Your task to perform on an android device: turn on location history Image 0: 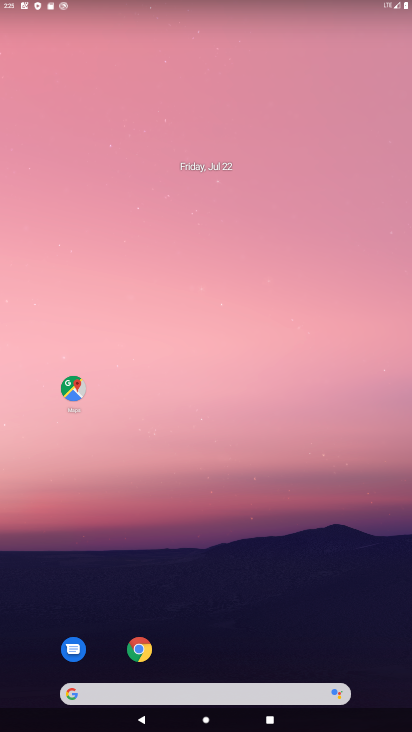
Step 0: drag from (129, 180) to (125, 47)
Your task to perform on an android device: turn on location history Image 1: 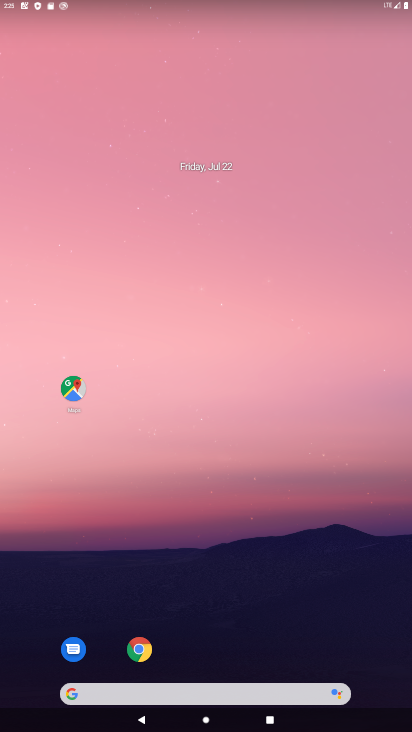
Step 1: drag from (181, 540) to (217, 16)
Your task to perform on an android device: turn on location history Image 2: 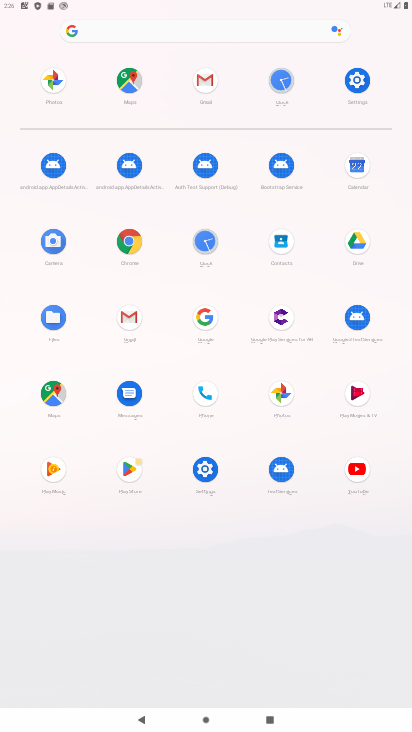
Step 2: drag from (179, 593) to (183, 230)
Your task to perform on an android device: turn on location history Image 3: 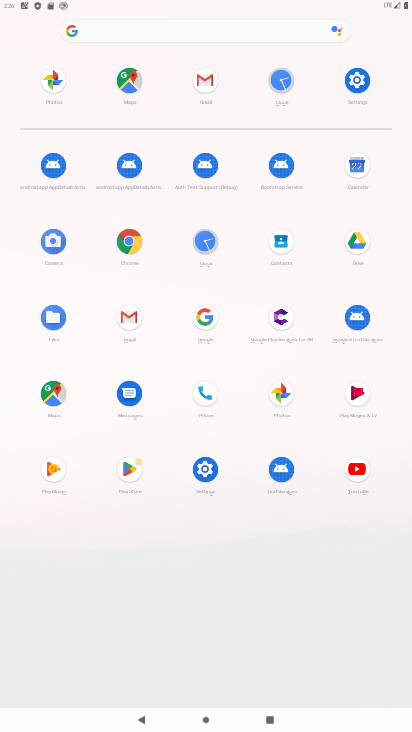
Step 3: click (206, 470)
Your task to perform on an android device: turn on location history Image 4: 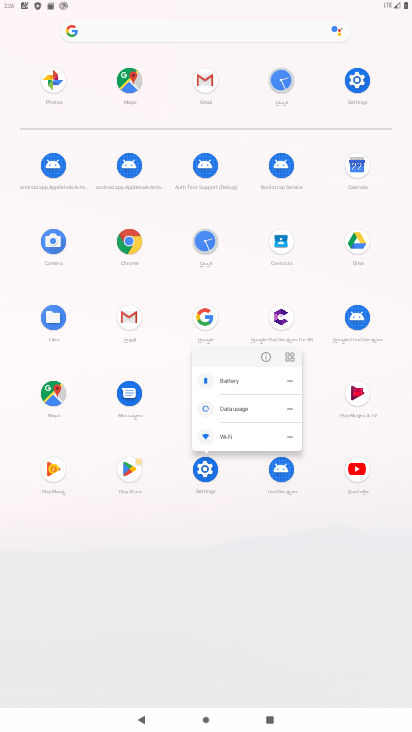
Step 4: click (269, 355)
Your task to perform on an android device: turn on location history Image 5: 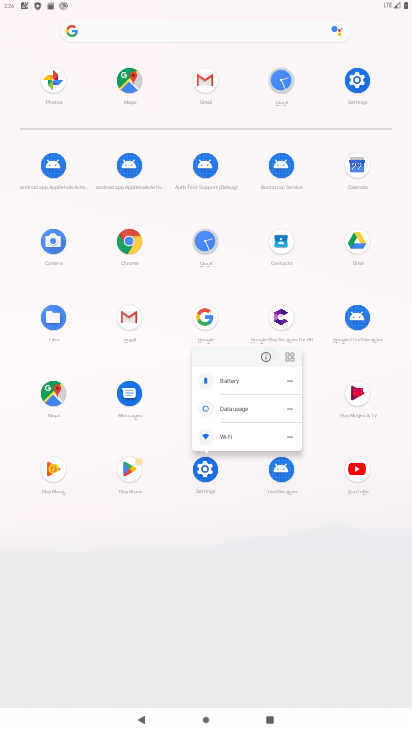
Step 5: click (270, 355)
Your task to perform on an android device: turn on location history Image 6: 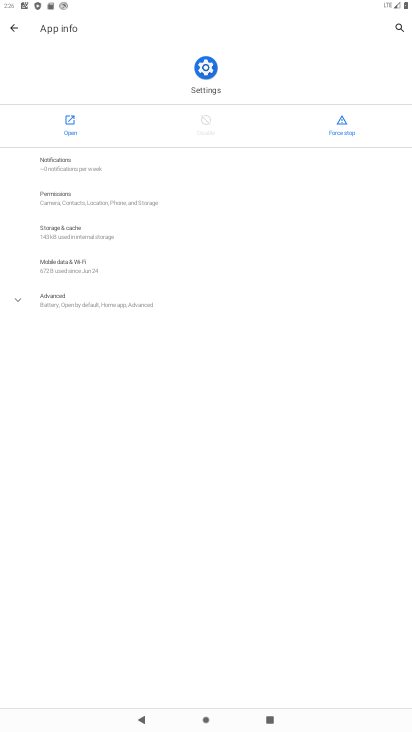
Step 6: click (64, 133)
Your task to perform on an android device: turn on location history Image 7: 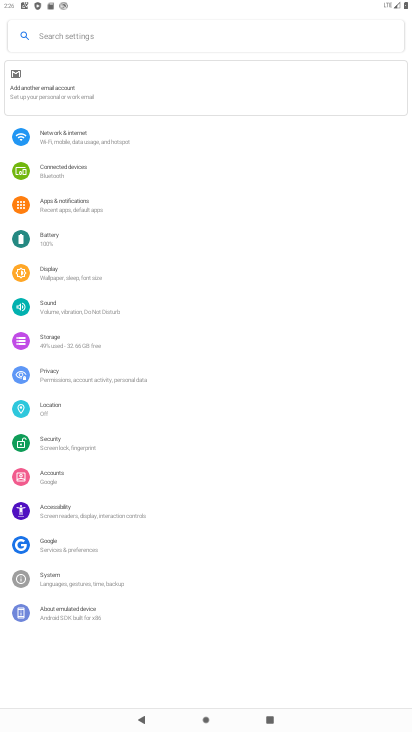
Step 7: click (60, 398)
Your task to perform on an android device: turn on location history Image 8: 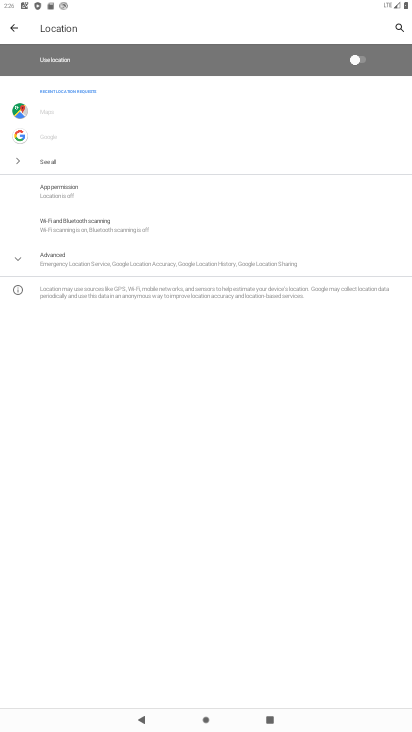
Step 8: click (88, 262)
Your task to perform on an android device: turn on location history Image 9: 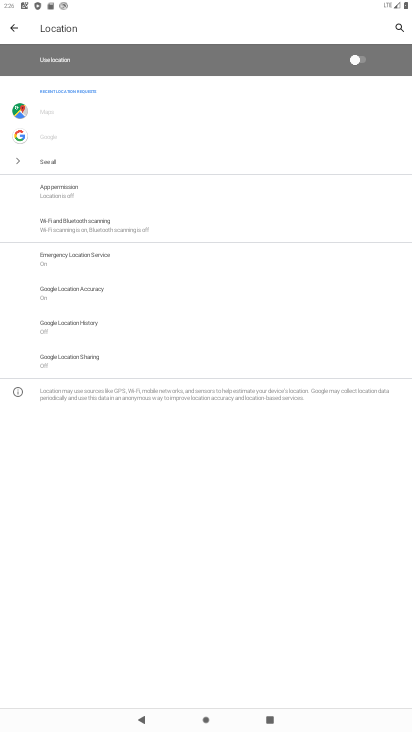
Step 9: click (79, 323)
Your task to perform on an android device: turn on location history Image 10: 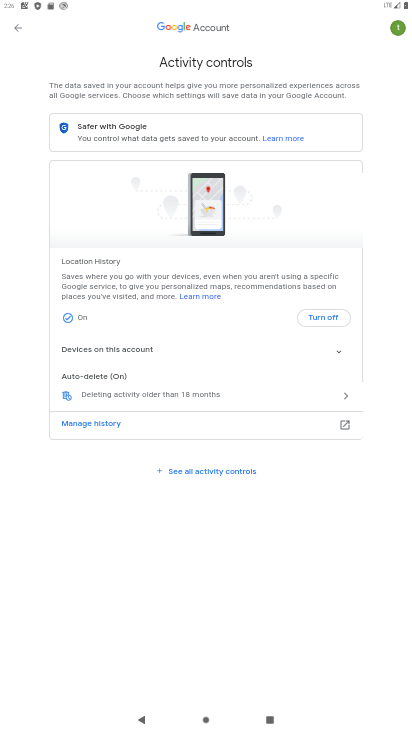
Step 10: task complete